Your task to perform on an android device: Open Yahoo.com Image 0: 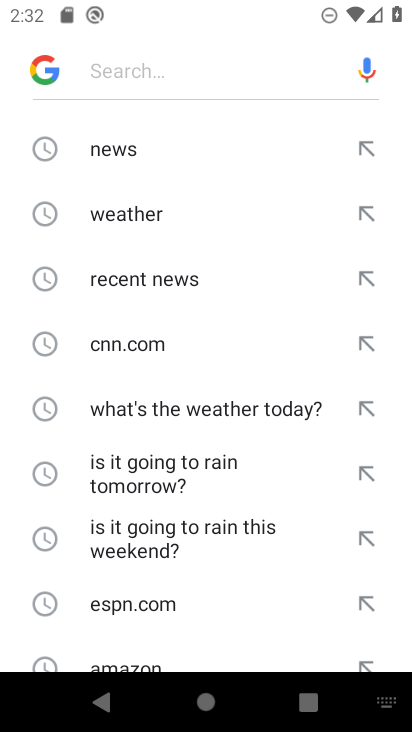
Step 0: press home button
Your task to perform on an android device: Open Yahoo.com Image 1: 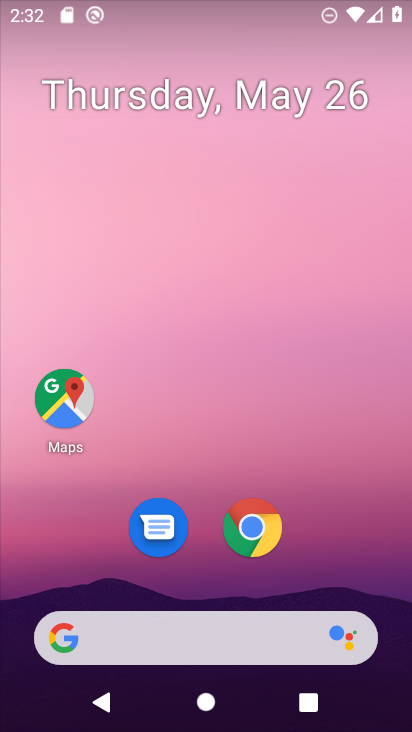
Step 1: click (268, 525)
Your task to perform on an android device: Open Yahoo.com Image 2: 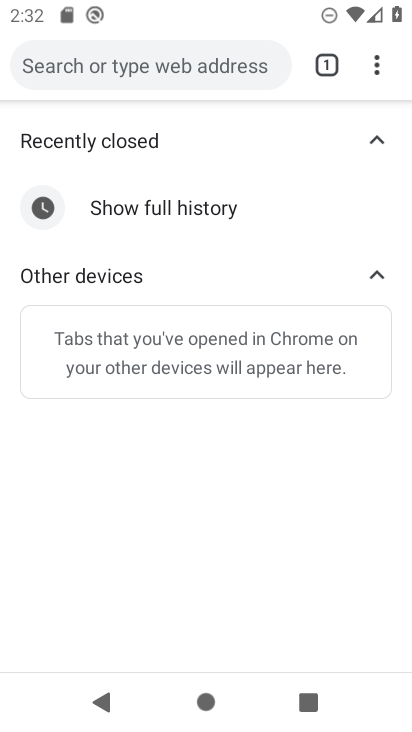
Step 2: click (325, 62)
Your task to perform on an android device: Open Yahoo.com Image 3: 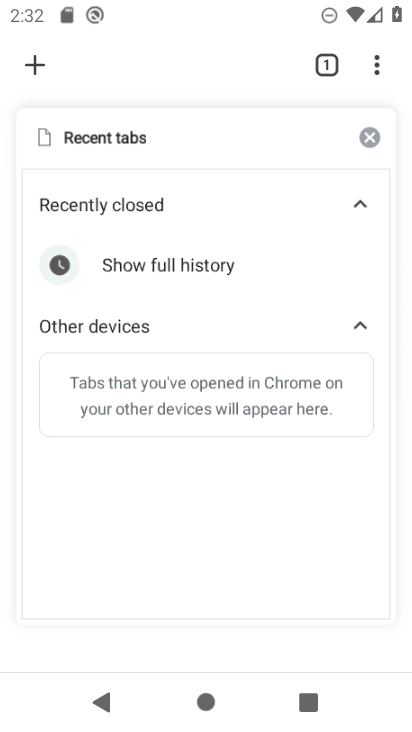
Step 3: click (40, 62)
Your task to perform on an android device: Open Yahoo.com Image 4: 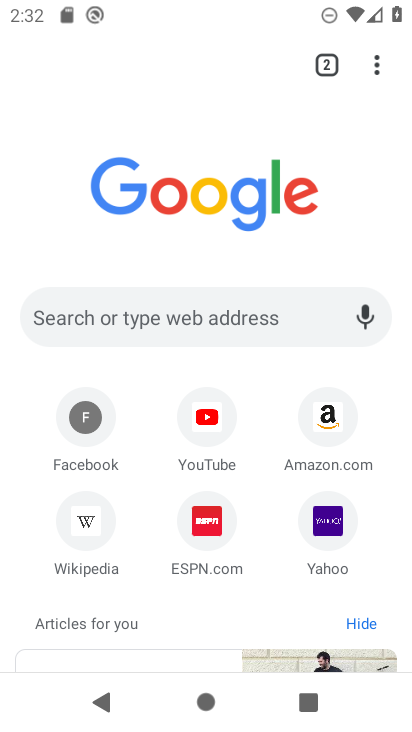
Step 4: click (339, 498)
Your task to perform on an android device: Open Yahoo.com Image 5: 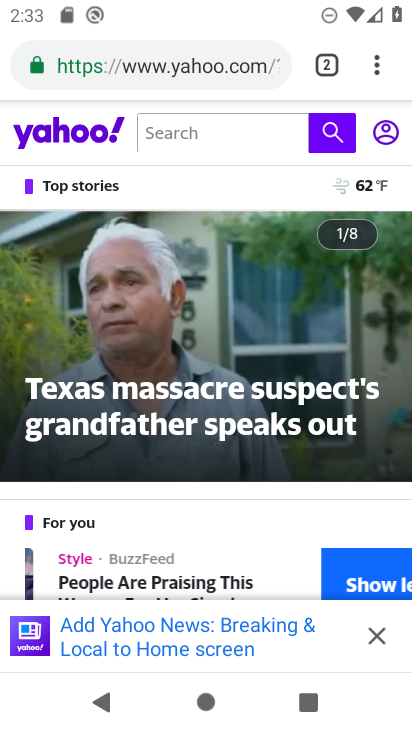
Step 5: task complete